Your task to perform on an android device: turn on javascript in the chrome app Image 0: 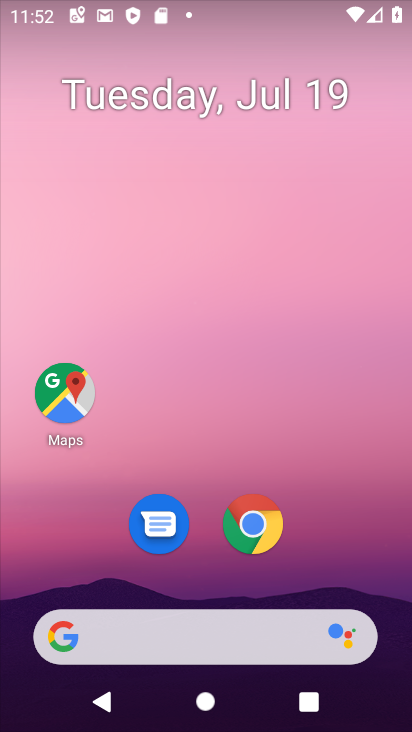
Step 0: press home button
Your task to perform on an android device: turn on javascript in the chrome app Image 1: 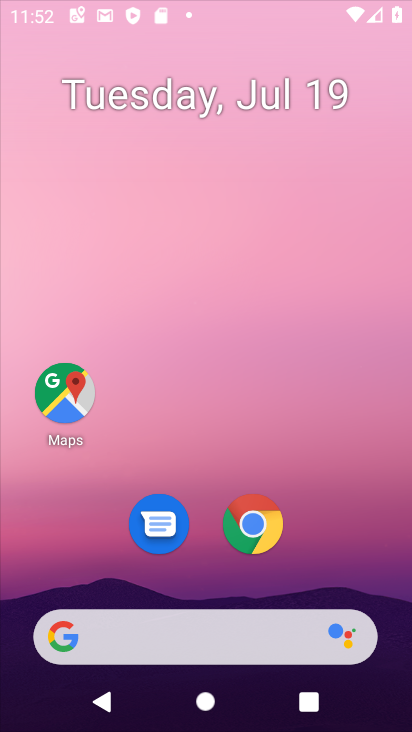
Step 1: click (251, 518)
Your task to perform on an android device: turn on javascript in the chrome app Image 2: 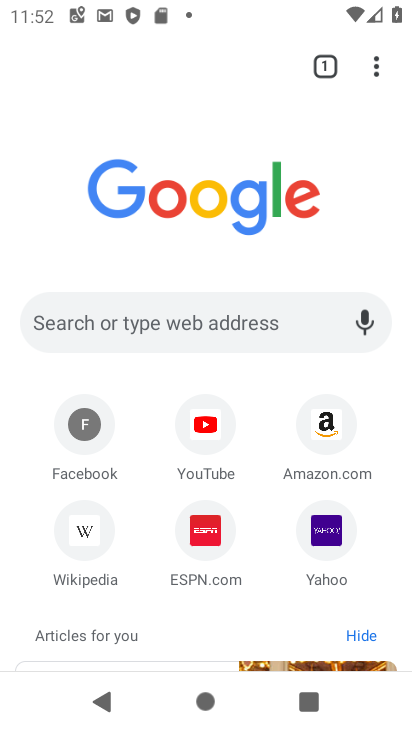
Step 2: drag from (376, 64) to (207, 554)
Your task to perform on an android device: turn on javascript in the chrome app Image 3: 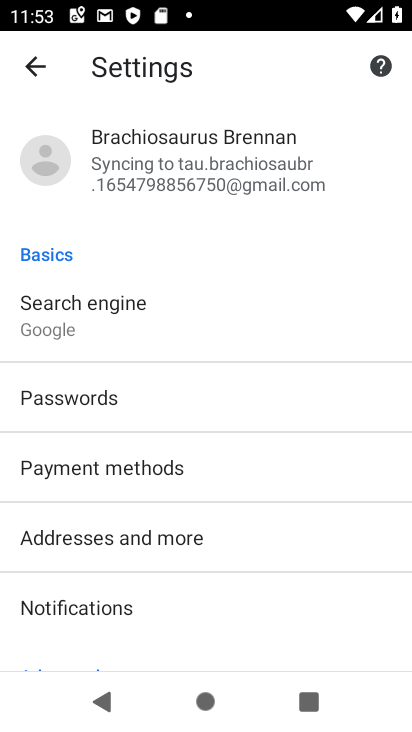
Step 3: drag from (210, 616) to (320, 73)
Your task to perform on an android device: turn on javascript in the chrome app Image 4: 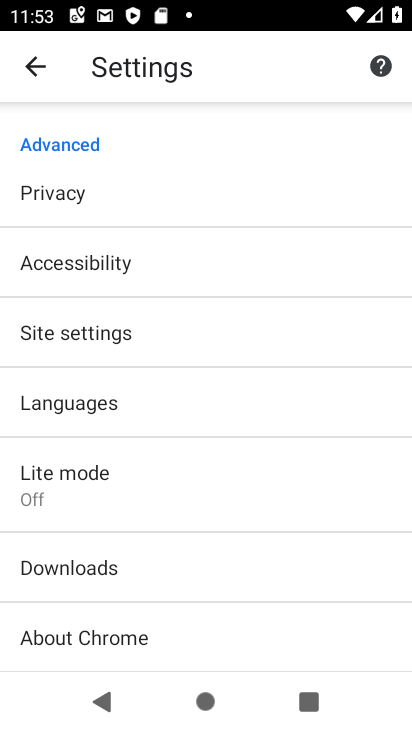
Step 4: click (103, 331)
Your task to perform on an android device: turn on javascript in the chrome app Image 5: 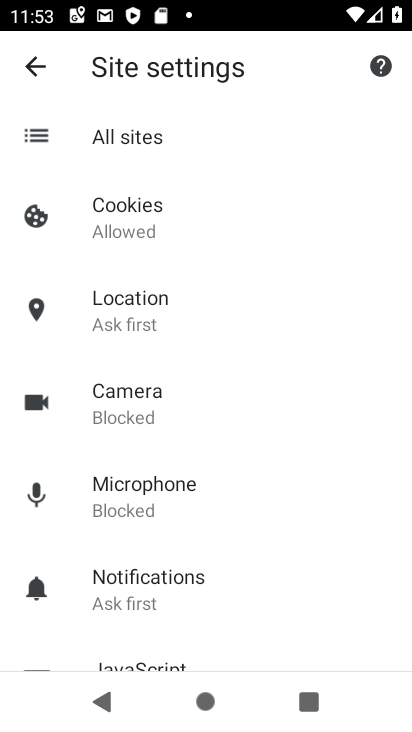
Step 5: drag from (239, 574) to (303, 290)
Your task to perform on an android device: turn on javascript in the chrome app Image 6: 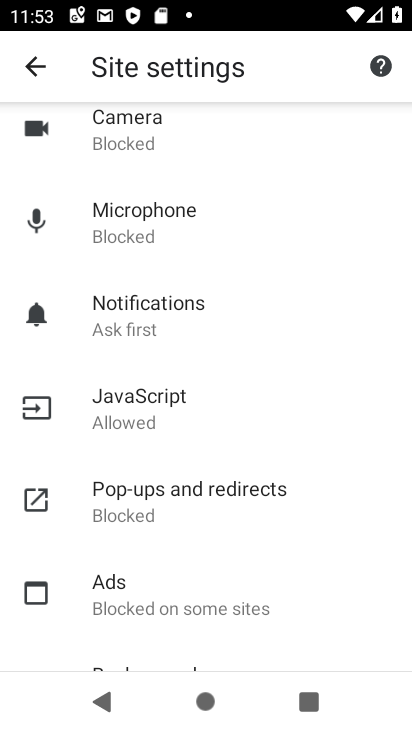
Step 6: click (151, 411)
Your task to perform on an android device: turn on javascript in the chrome app Image 7: 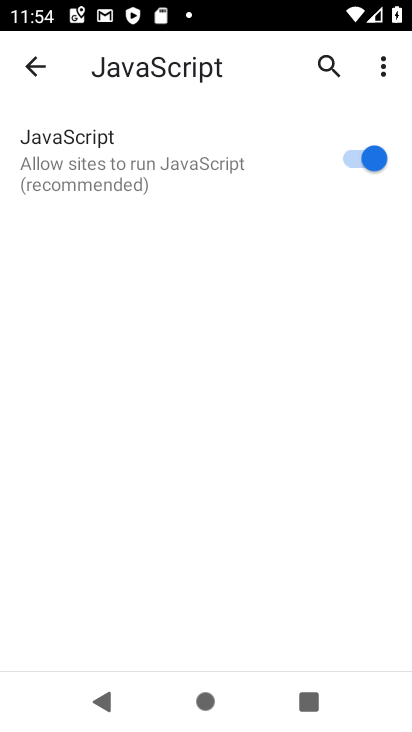
Step 7: task complete